Your task to perform on an android device: open chrome privacy settings Image 0: 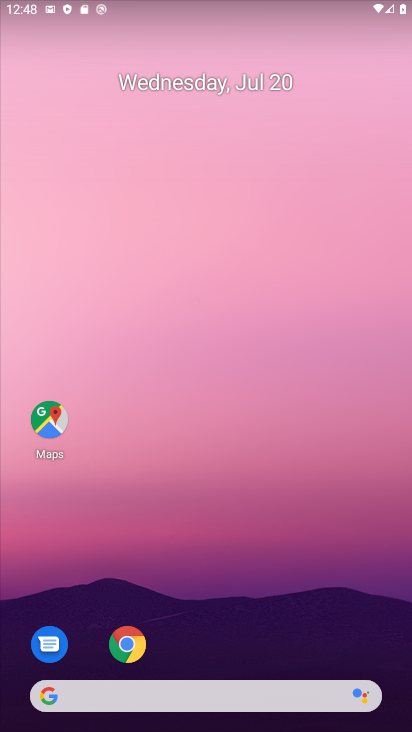
Step 0: click (124, 643)
Your task to perform on an android device: open chrome privacy settings Image 1: 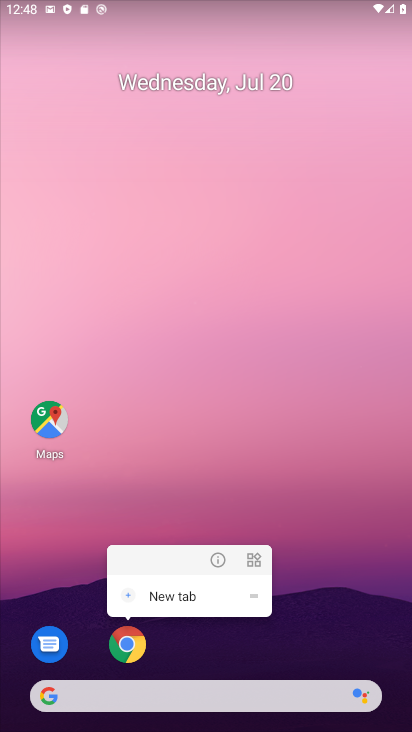
Step 1: click (127, 648)
Your task to perform on an android device: open chrome privacy settings Image 2: 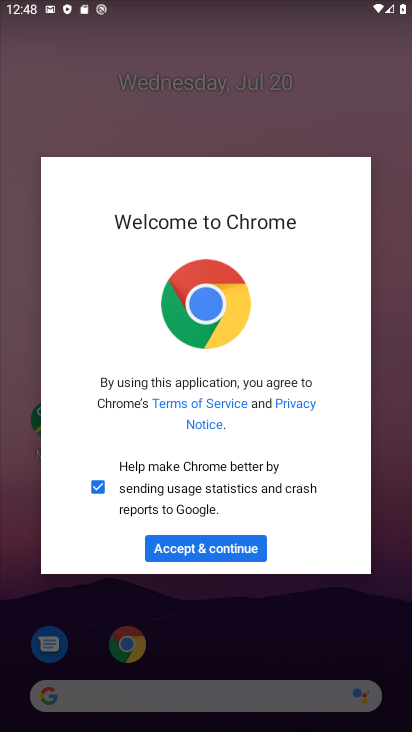
Step 2: click (209, 551)
Your task to perform on an android device: open chrome privacy settings Image 3: 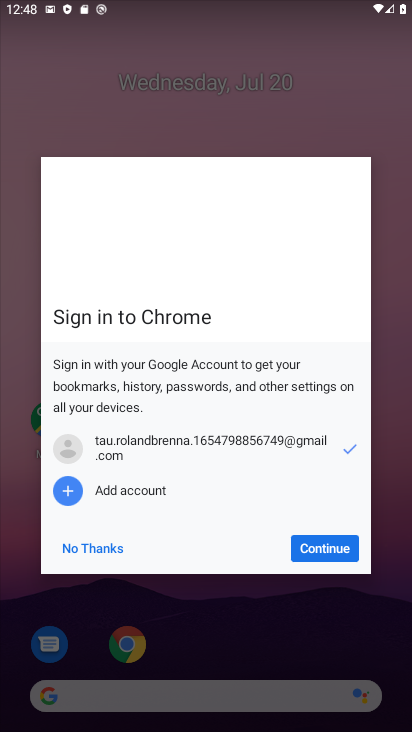
Step 3: click (308, 551)
Your task to perform on an android device: open chrome privacy settings Image 4: 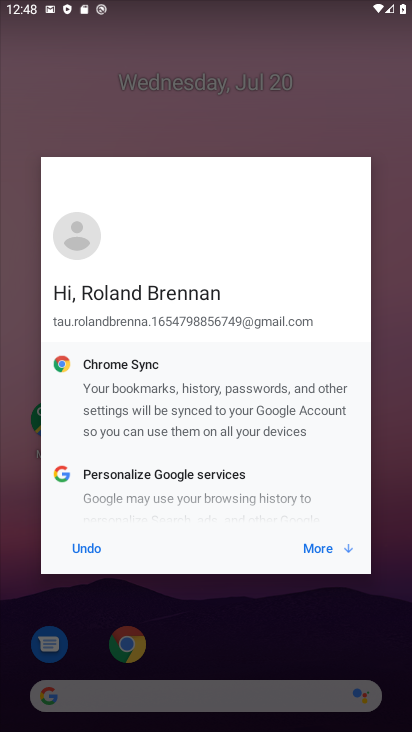
Step 4: click (308, 551)
Your task to perform on an android device: open chrome privacy settings Image 5: 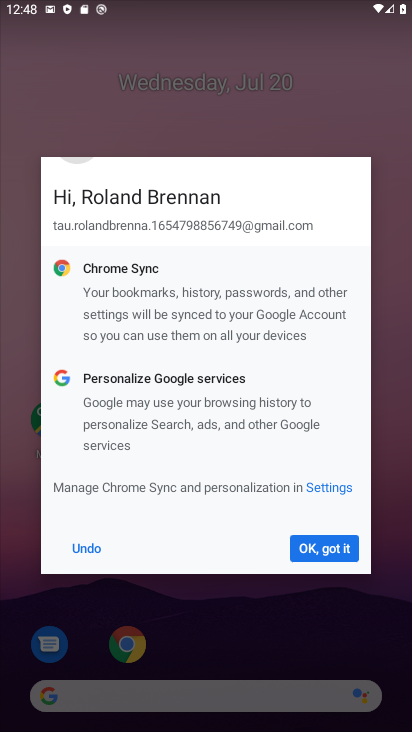
Step 5: click (308, 551)
Your task to perform on an android device: open chrome privacy settings Image 6: 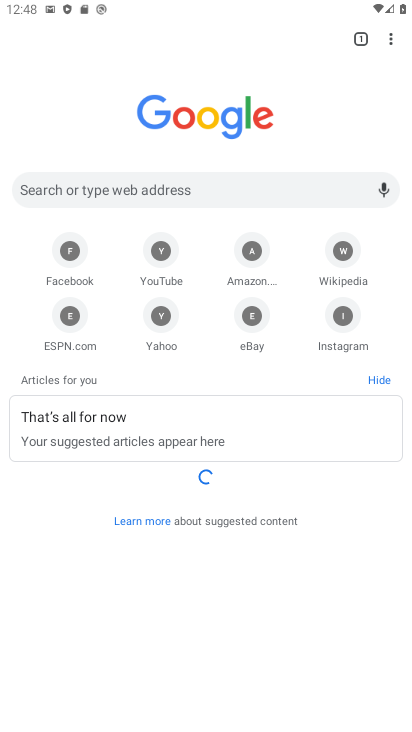
Step 6: click (387, 44)
Your task to perform on an android device: open chrome privacy settings Image 7: 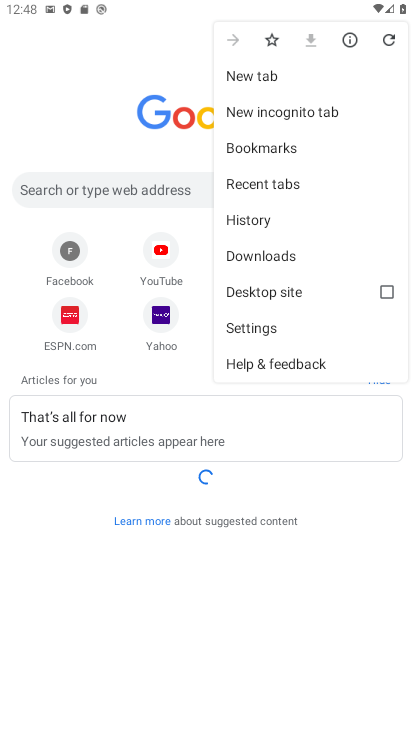
Step 7: click (275, 330)
Your task to perform on an android device: open chrome privacy settings Image 8: 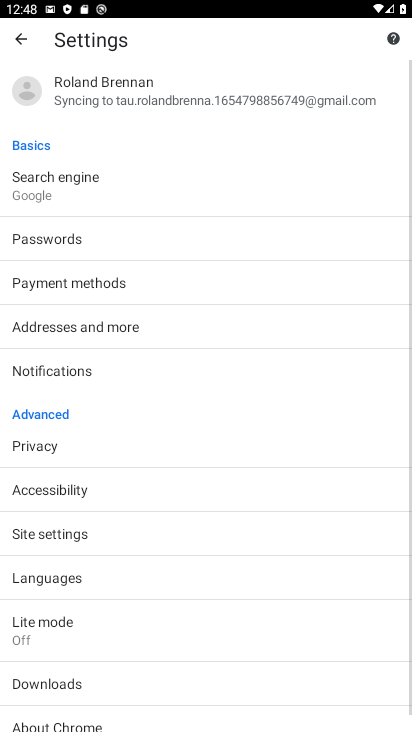
Step 8: click (79, 444)
Your task to perform on an android device: open chrome privacy settings Image 9: 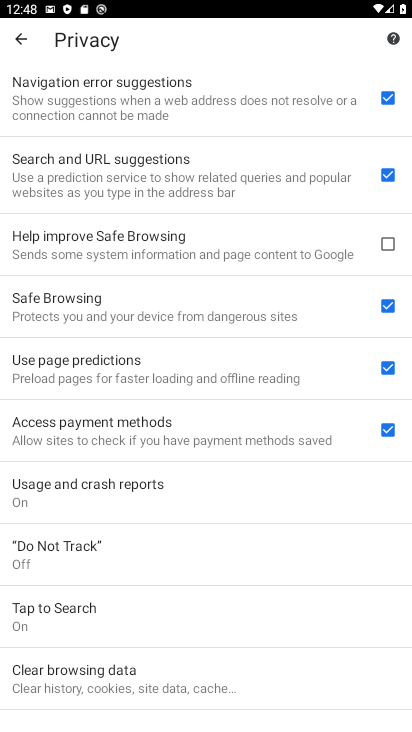
Step 9: task complete